Your task to perform on an android device: move a message to another label in the gmail app Image 0: 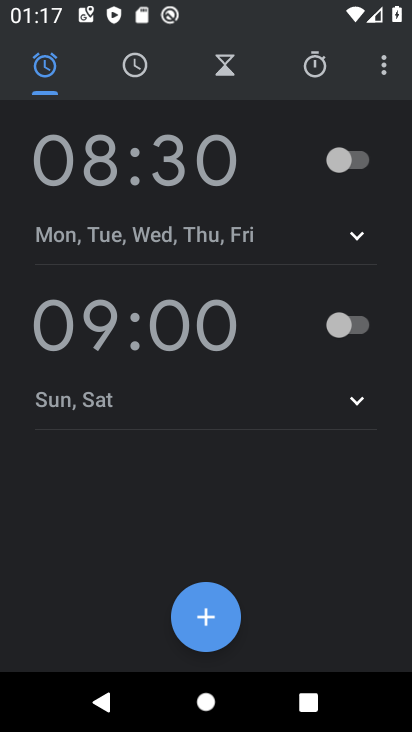
Step 0: press home button
Your task to perform on an android device: move a message to another label in the gmail app Image 1: 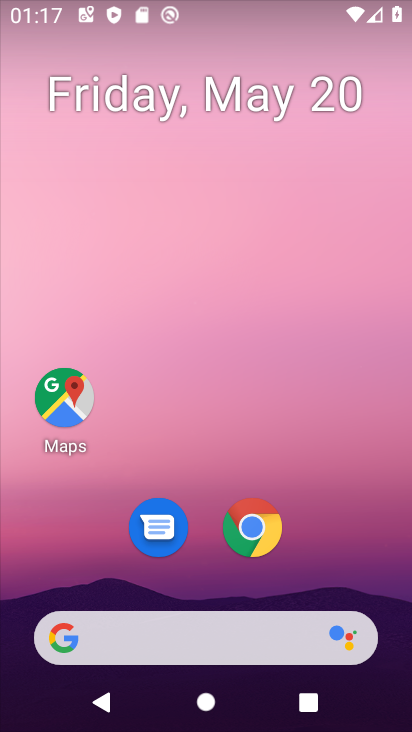
Step 1: drag from (185, 638) to (289, 184)
Your task to perform on an android device: move a message to another label in the gmail app Image 2: 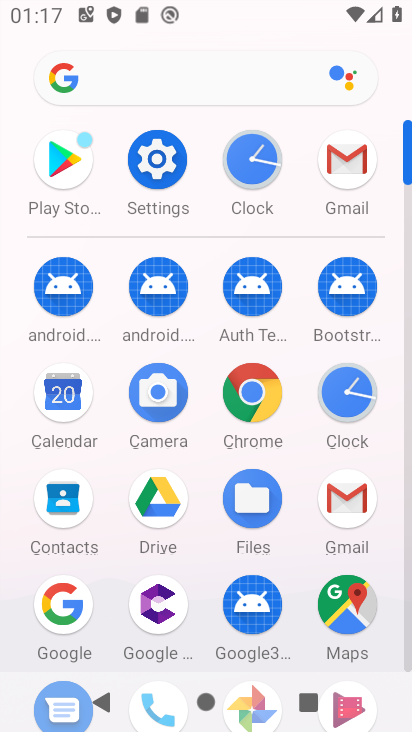
Step 2: click (347, 173)
Your task to perform on an android device: move a message to another label in the gmail app Image 3: 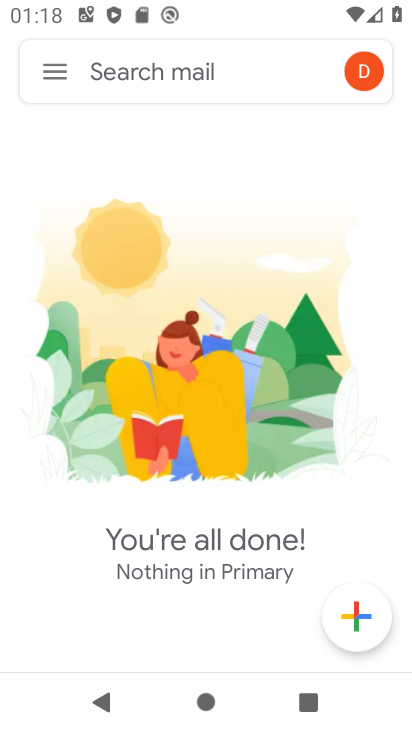
Step 3: task complete